Your task to perform on an android device: change the clock display to show seconds Image 0: 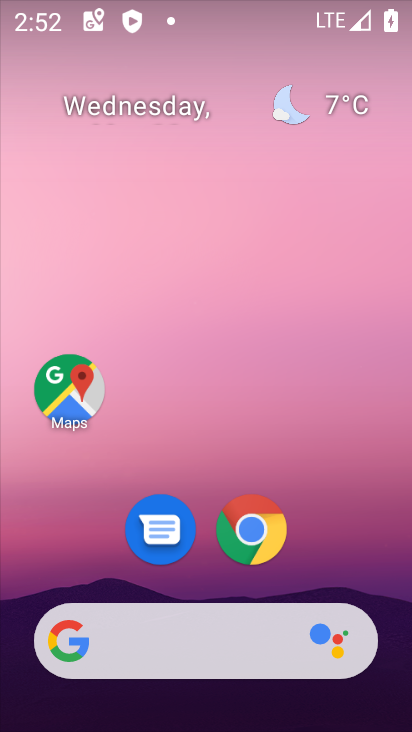
Step 0: drag from (387, 382) to (385, 44)
Your task to perform on an android device: change the clock display to show seconds Image 1: 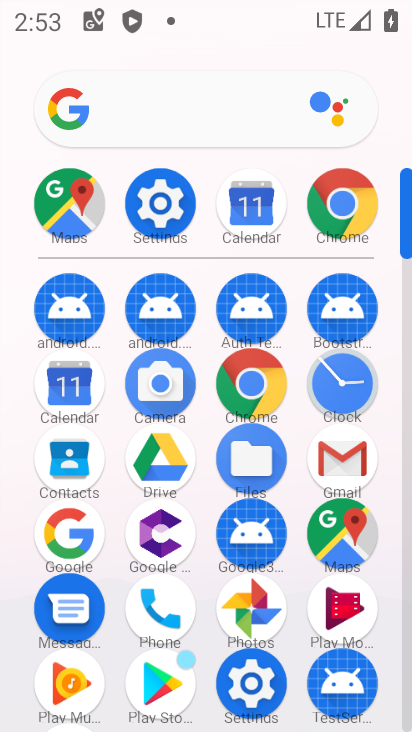
Step 1: click (361, 388)
Your task to perform on an android device: change the clock display to show seconds Image 2: 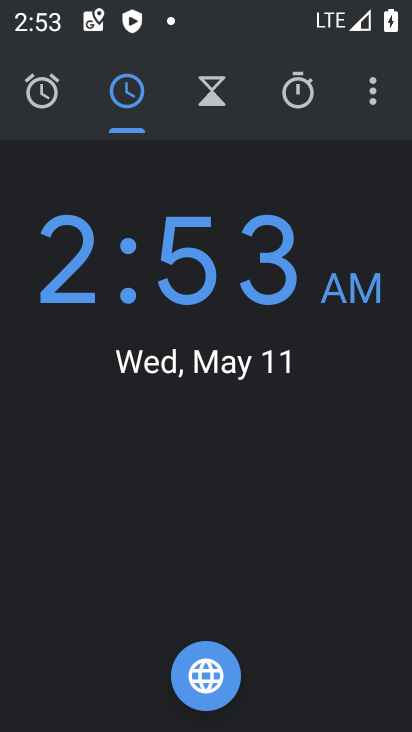
Step 2: click (379, 87)
Your task to perform on an android device: change the clock display to show seconds Image 3: 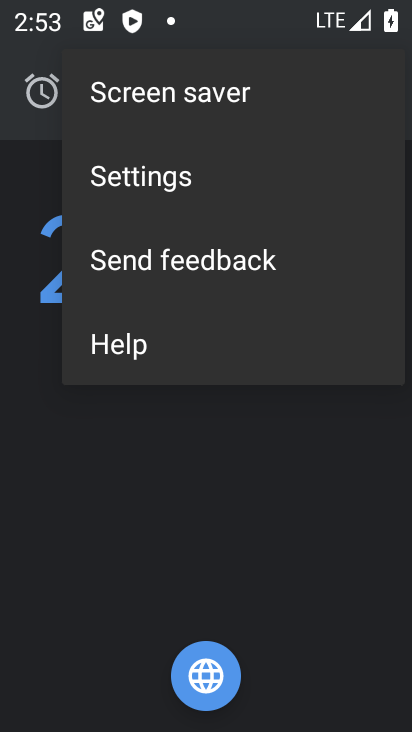
Step 3: click (172, 173)
Your task to perform on an android device: change the clock display to show seconds Image 4: 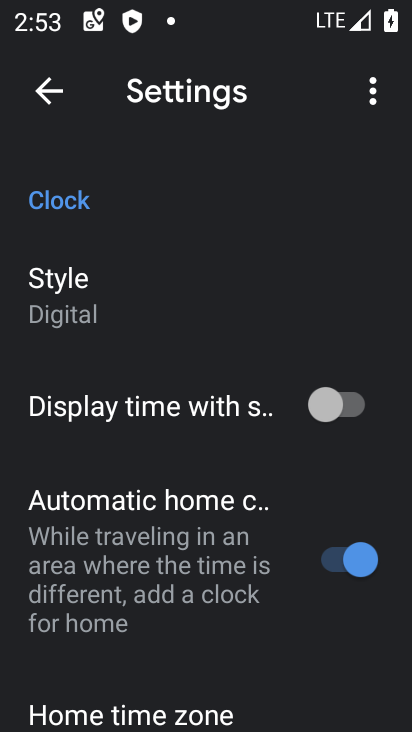
Step 4: click (327, 413)
Your task to perform on an android device: change the clock display to show seconds Image 5: 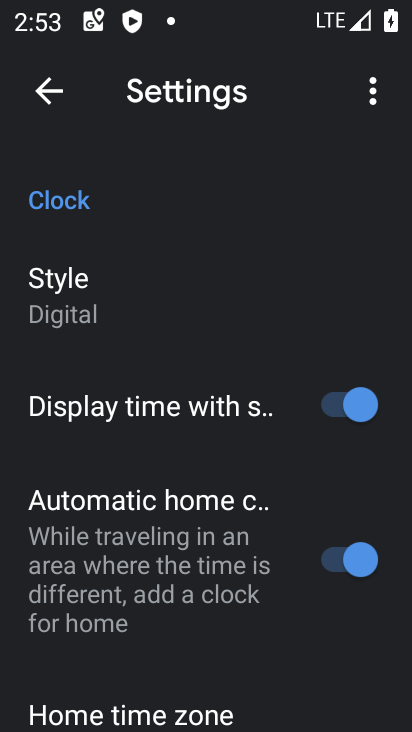
Step 5: task complete